Your task to perform on an android device: turn off priority inbox in the gmail app Image 0: 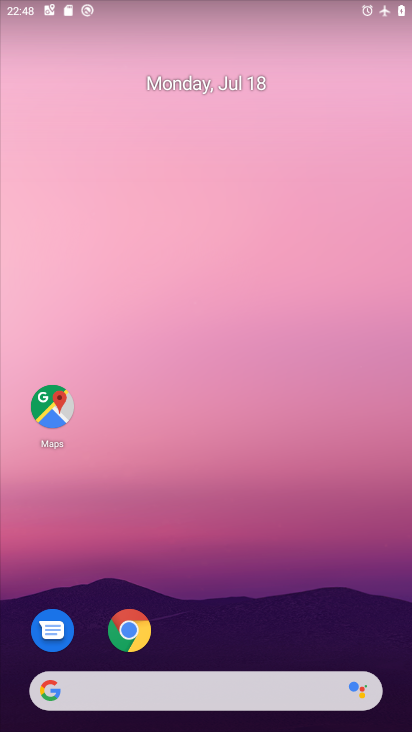
Step 0: drag from (226, 642) to (234, 175)
Your task to perform on an android device: turn off priority inbox in the gmail app Image 1: 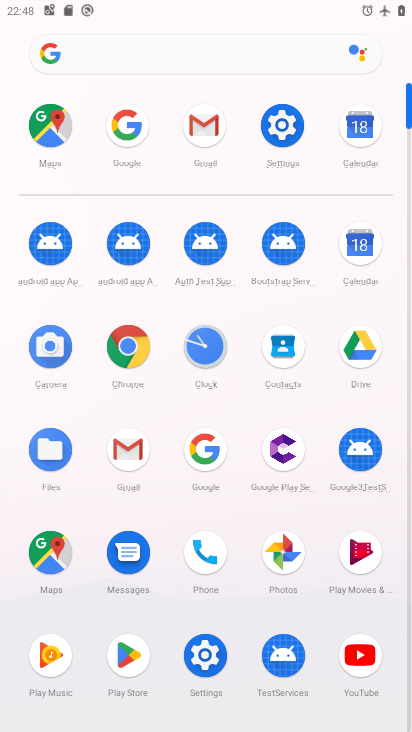
Step 1: click (193, 127)
Your task to perform on an android device: turn off priority inbox in the gmail app Image 2: 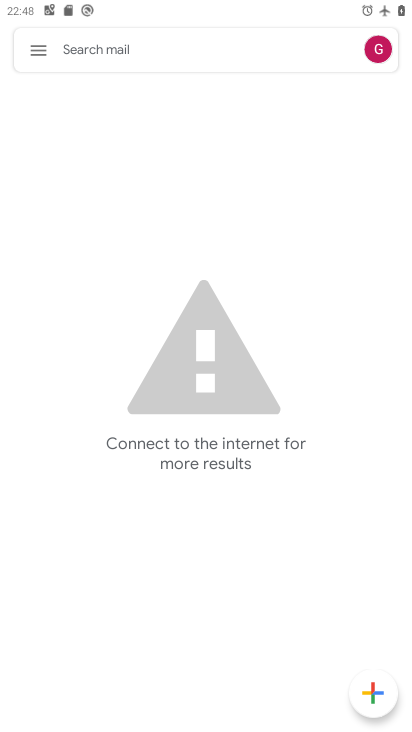
Step 2: click (39, 55)
Your task to perform on an android device: turn off priority inbox in the gmail app Image 3: 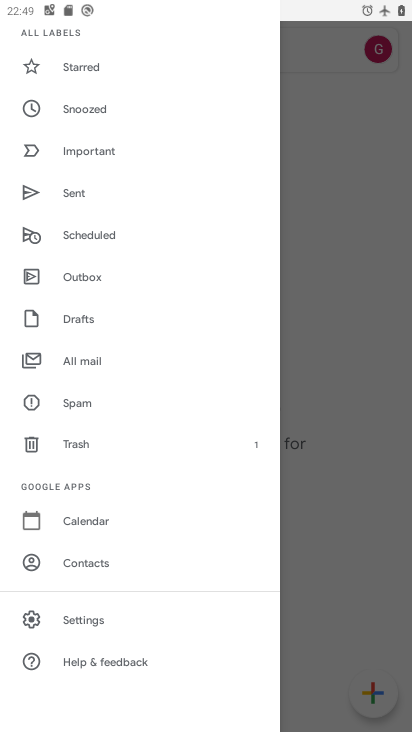
Step 3: click (87, 631)
Your task to perform on an android device: turn off priority inbox in the gmail app Image 4: 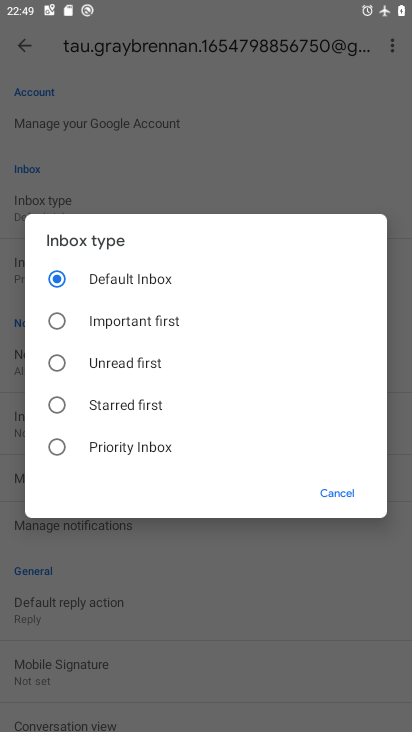
Step 4: task complete